Your task to perform on an android device: turn smart compose on in the gmail app Image 0: 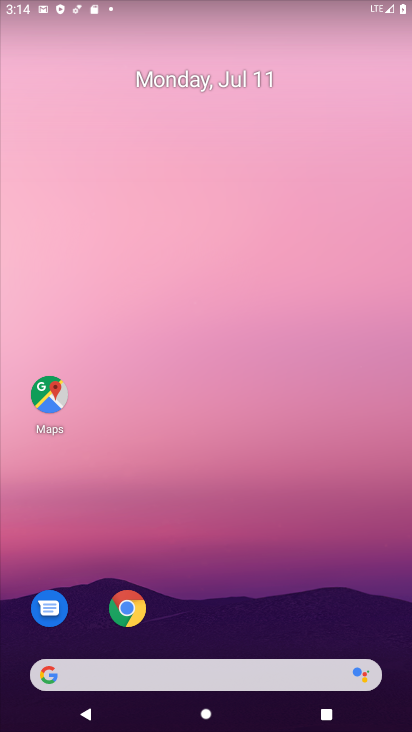
Step 0: drag from (176, 611) to (318, 8)
Your task to perform on an android device: turn smart compose on in the gmail app Image 1: 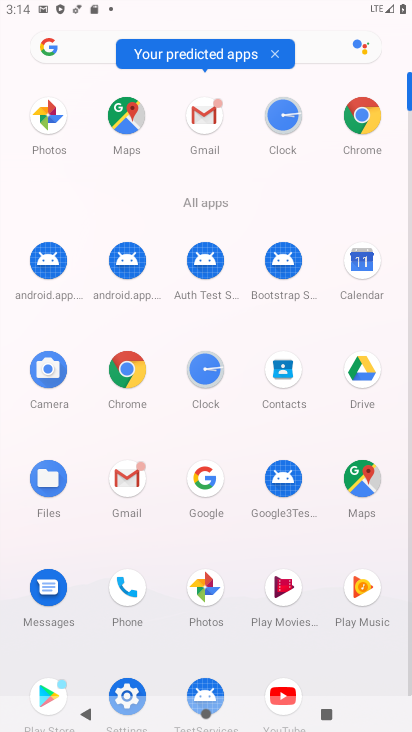
Step 1: click (187, 109)
Your task to perform on an android device: turn smart compose on in the gmail app Image 2: 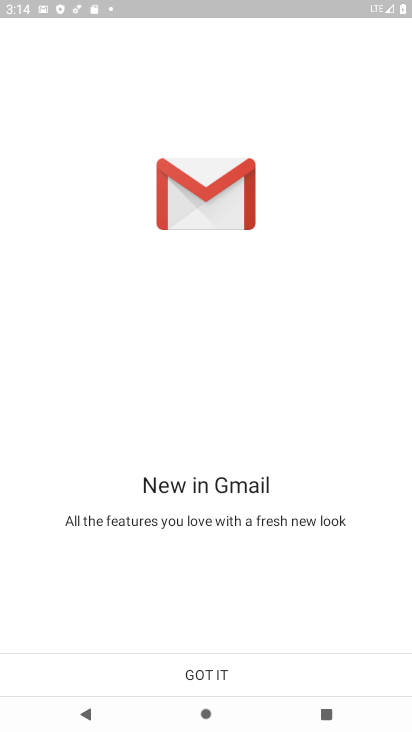
Step 2: click (143, 674)
Your task to perform on an android device: turn smart compose on in the gmail app Image 3: 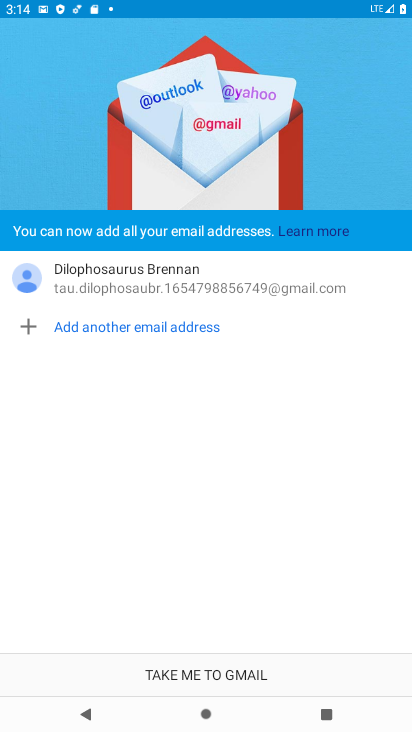
Step 3: click (143, 674)
Your task to perform on an android device: turn smart compose on in the gmail app Image 4: 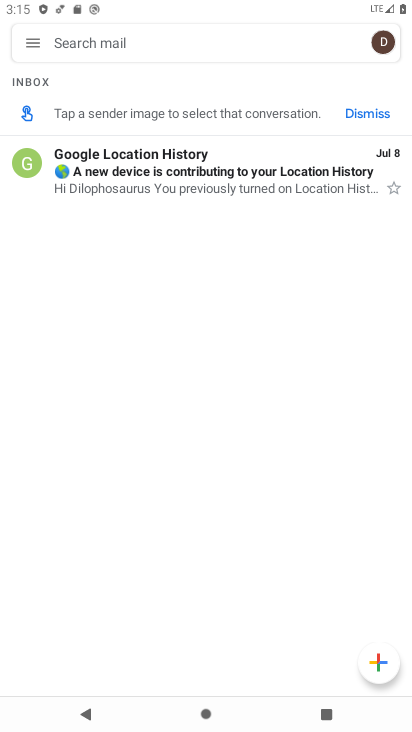
Step 4: click (38, 40)
Your task to perform on an android device: turn smart compose on in the gmail app Image 5: 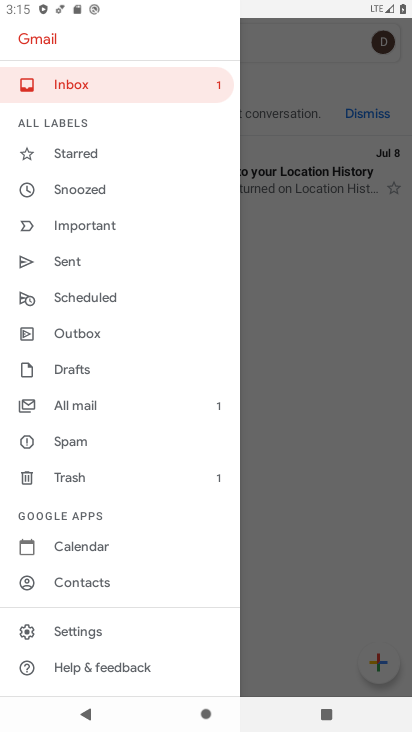
Step 5: click (85, 634)
Your task to perform on an android device: turn smart compose on in the gmail app Image 6: 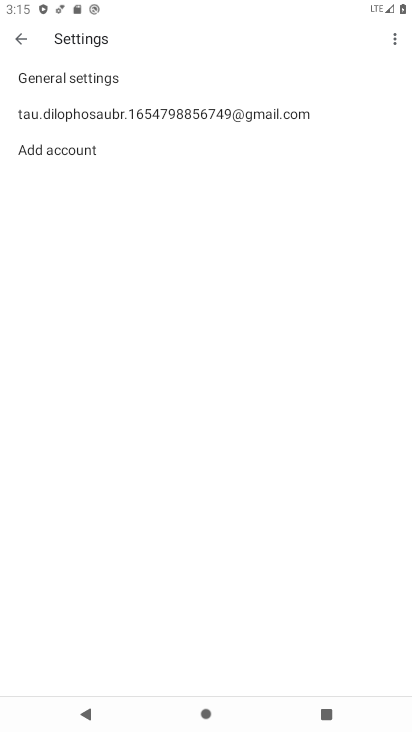
Step 6: click (207, 117)
Your task to perform on an android device: turn smart compose on in the gmail app Image 7: 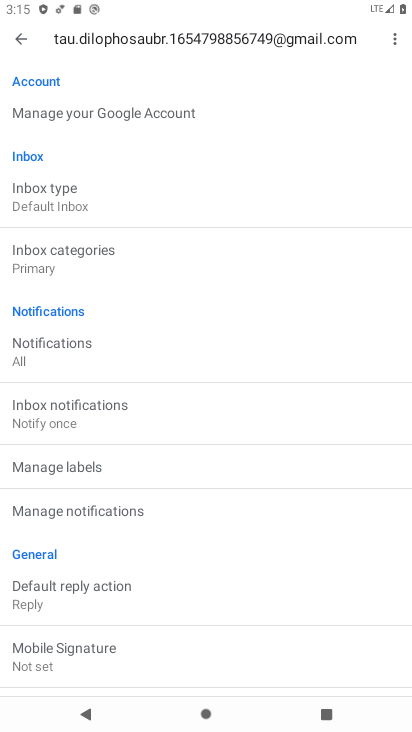
Step 7: task complete